Your task to perform on an android device: Check the weather Image 0: 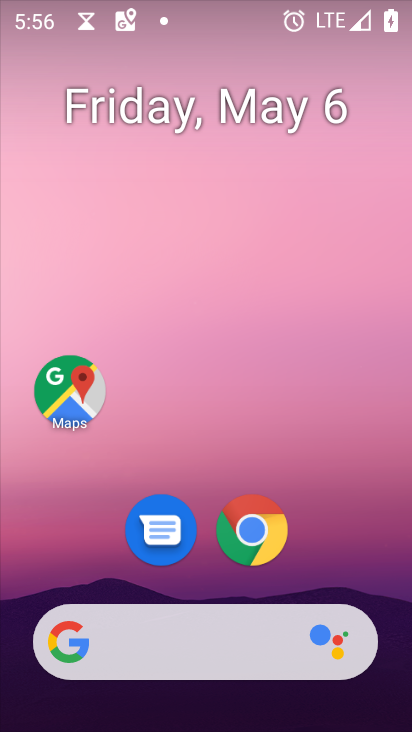
Step 0: drag from (303, 414) to (170, 24)
Your task to perform on an android device: Check the weather Image 1: 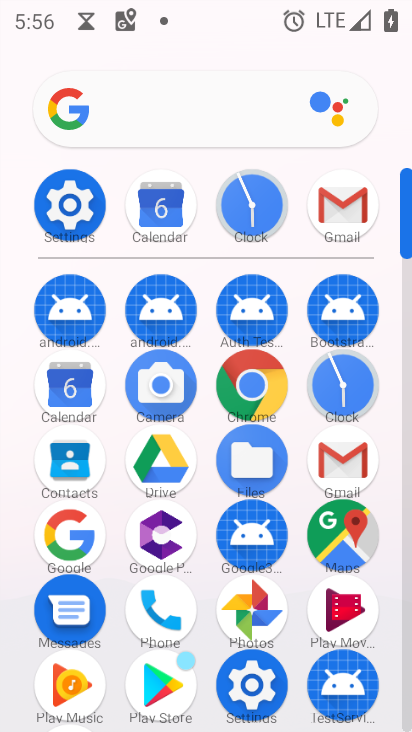
Step 1: click (65, 536)
Your task to perform on an android device: Check the weather Image 2: 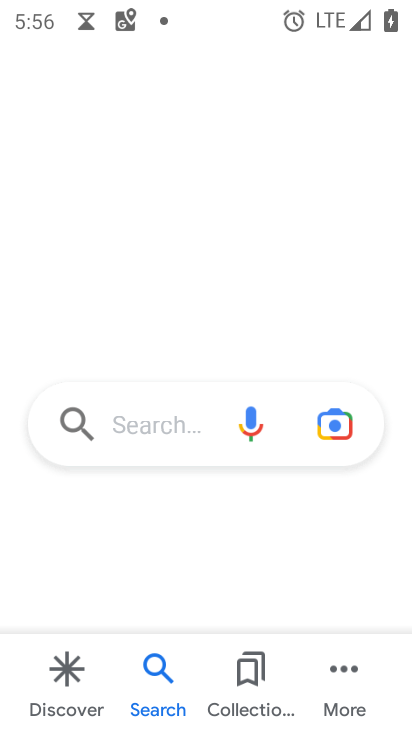
Step 2: click (153, 428)
Your task to perform on an android device: Check the weather Image 3: 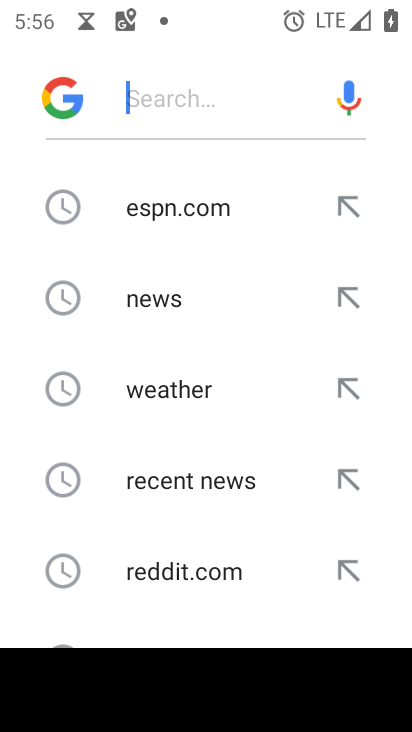
Step 3: click (168, 381)
Your task to perform on an android device: Check the weather Image 4: 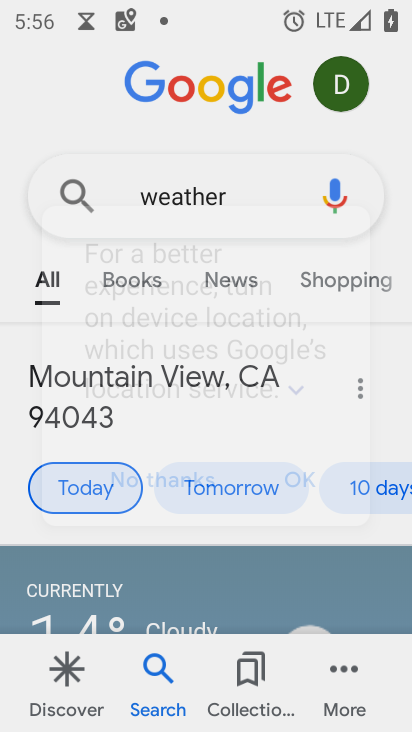
Step 4: drag from (247, 522) to (182, 80)
Your task to perform on an android device: Check the weather Image 5: 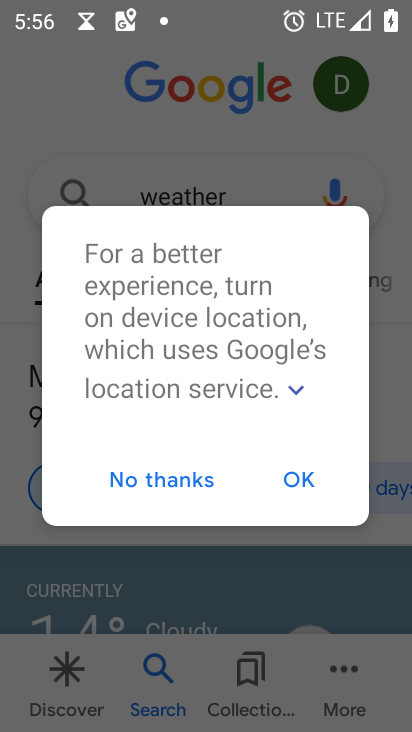
Step 5: click (169, 488)
Your task to perform on an android device: Check the weather Image 6: 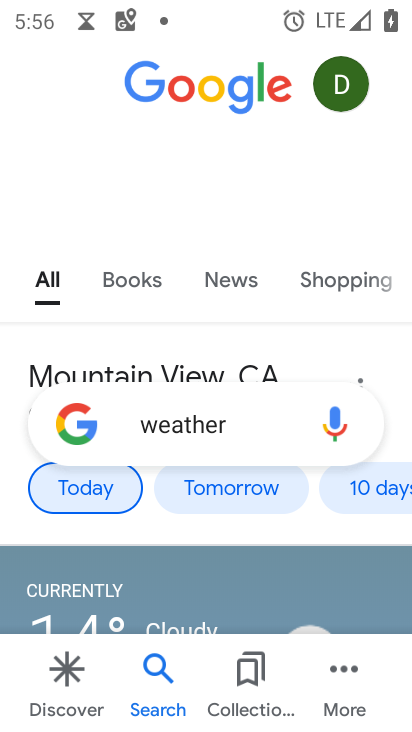
Step 6: task complete